Your task to perform on an android device: Go to CNN.com Image 0: 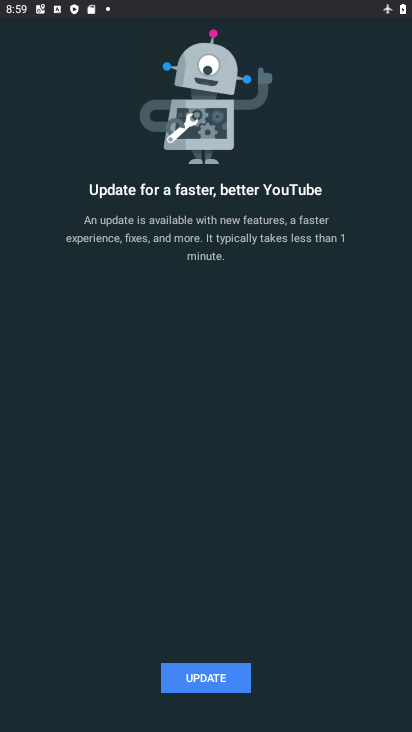
Step 0: click (405, 557)
Your task to perform on an android device: Go to CNN.com Image 1: 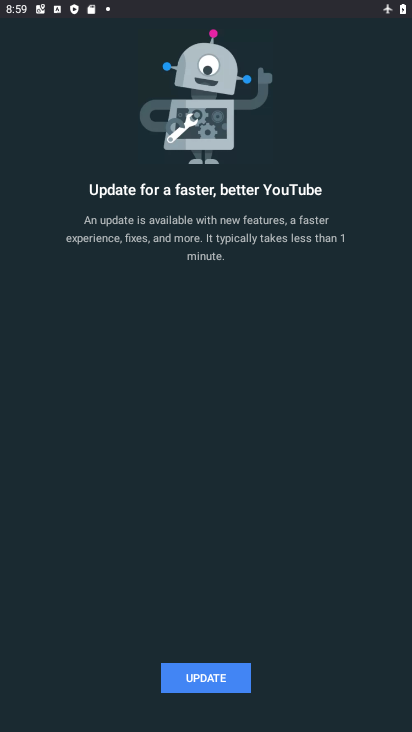
Step 1: press home button
Your task to perform on an android device: Go to CNN.com Image 2: 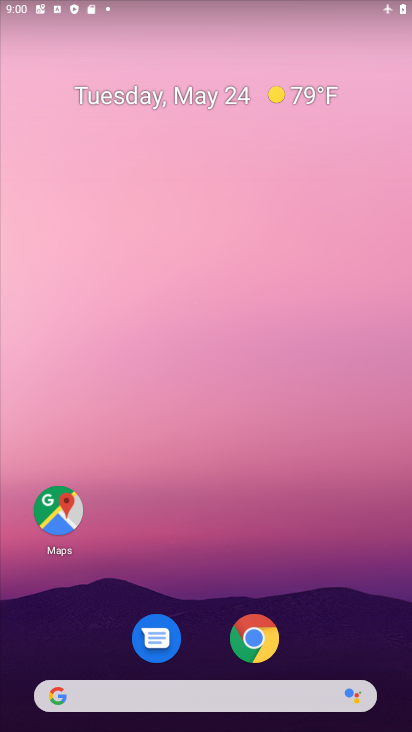
Step 2: click (253, 703)
Your task to perform on an android device: Go to CNN.com Image 3: 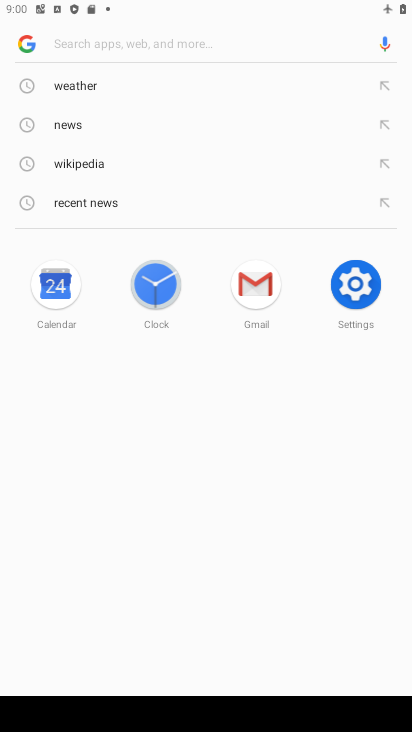
Step 3: click (153, 48)
Your task to perform on an android device: Go to CNN.com Image 4: 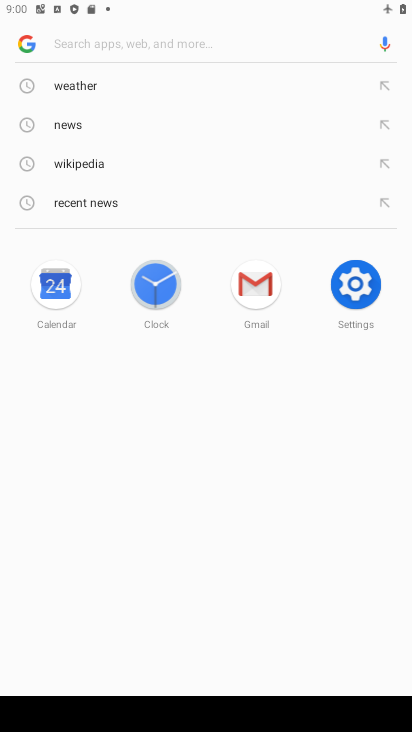
Step 4: type "cnn.com"
Your task to perform on an android device: Go to CNN.com Image 5: 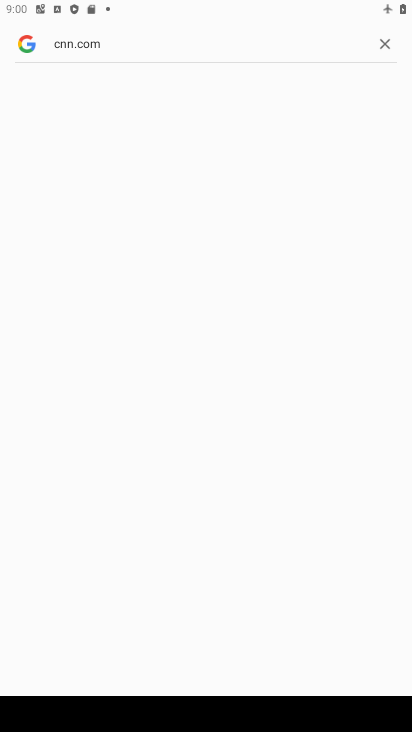
Step 5: task complete